Your task to perform on an android device: choose inbox layout in the gmail app Image 0: 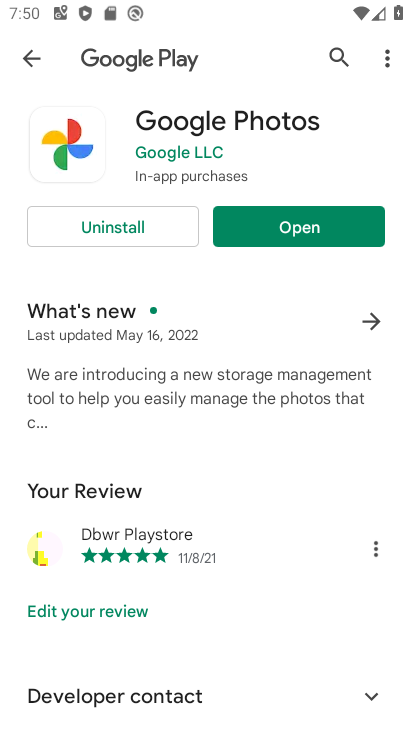
Step 0: press home button
Your task to perform on an android device: choose inbox layout in the gmail app Image 1: 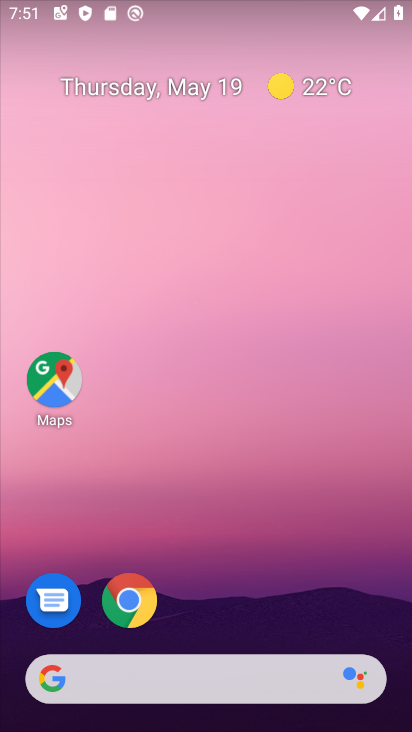
Step 1: drag from (279, 542) to (263, 89)
Your task to perform on an android device: choose inbox layout in the gmail app Image 2: 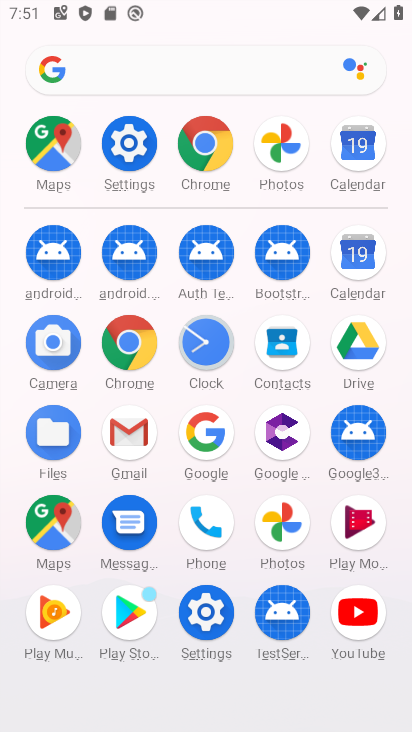
Step 2: click (121, 440)
Your task to perform on an android device: choose inbox layout in the gmail app Image 3: 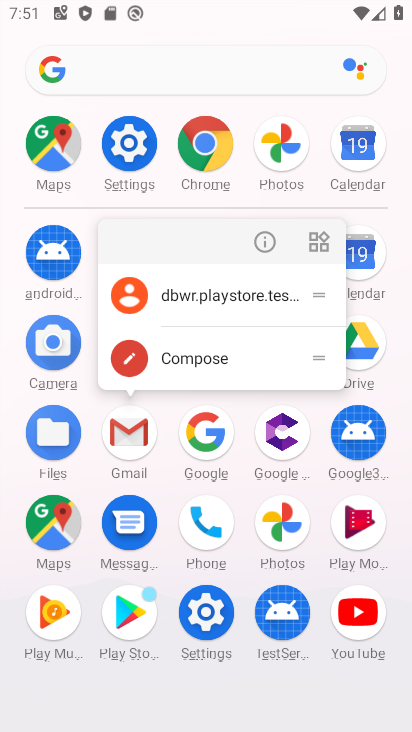
Step 3: click (125, 437)
Your task to perform on an android device: choose inbox layout in the gmail app Image 4: 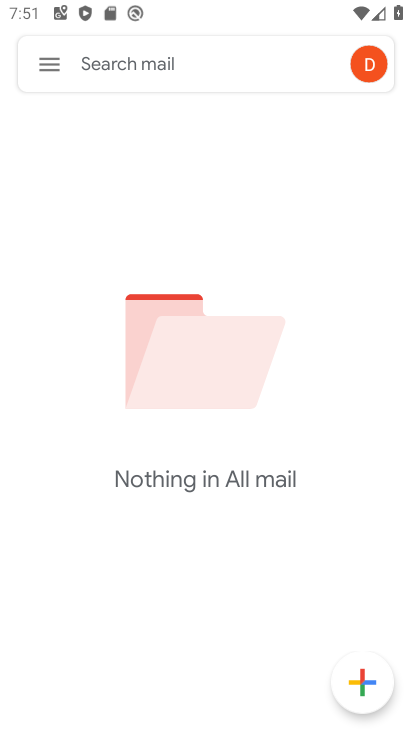
Step 4: click (57, 65)
Your task to perform on an android device: choose inbox layout in the gmail app Image 5: 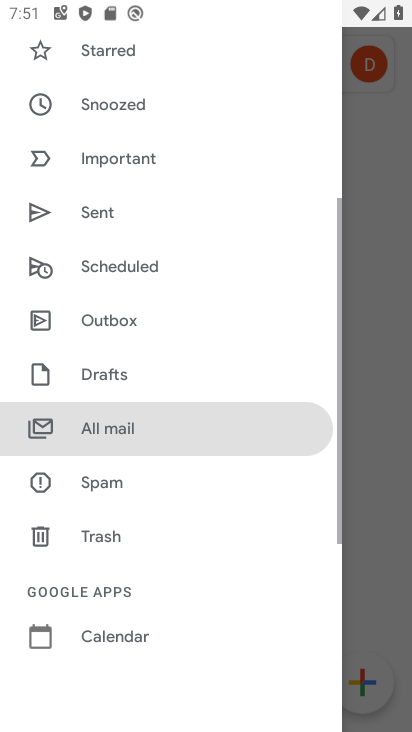
Step 5: drag from (144, 625) to (196, 338)
Your task to perform on an android device: choose inbox layout in the gmail app Image 6: 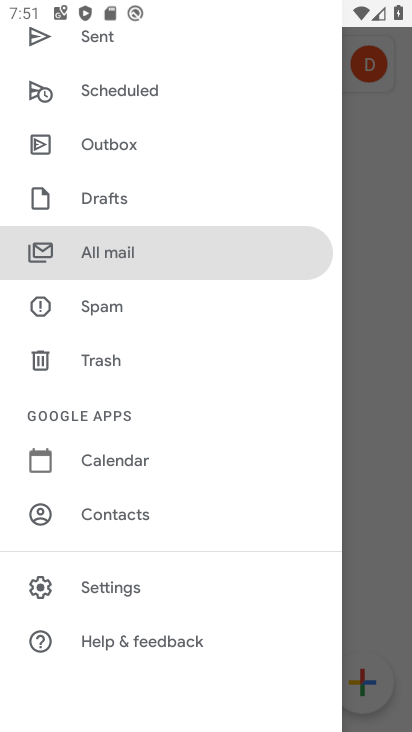
Step 6: click (117, 594)
Your task to perform on an android device: choose inbox layout in the gmail app Image 7: 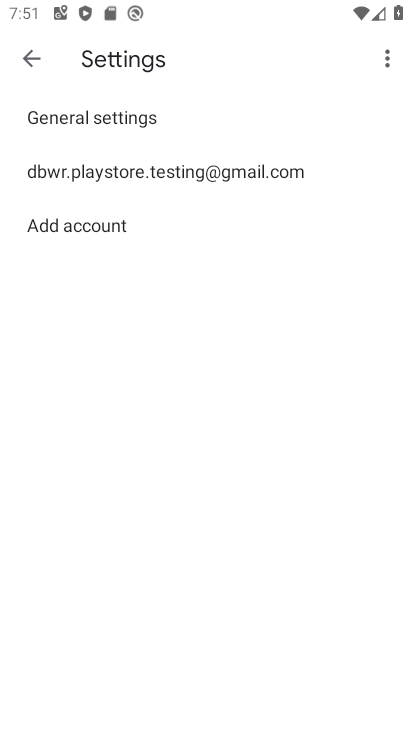
Step 7: click (106, 176)
Your task to perform on an android device: choose inbox layout in the gmail app Image 8: 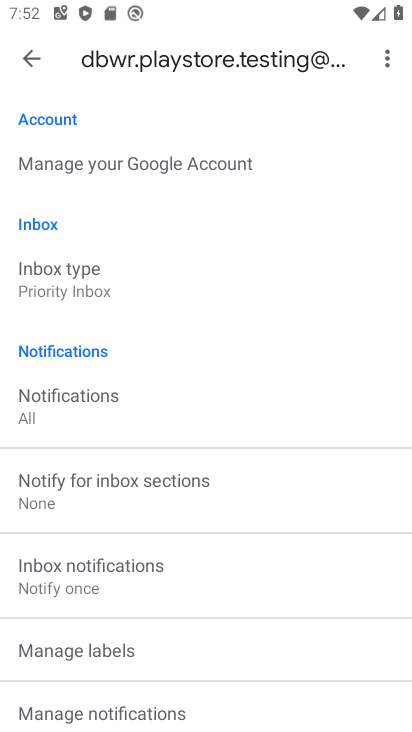
Step 8: click (62, 274)
Your task to perform on an android device: choose inbox layout in the gmail app Image 9: 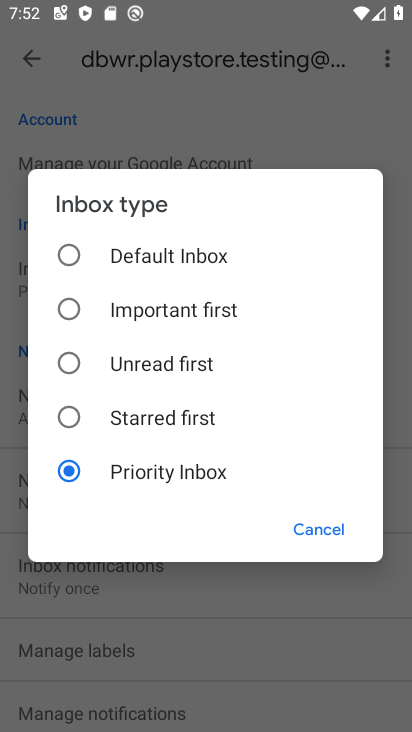
Step 9: click (64, 366)
Your task to perform on an android device: choose inbox layout in the gmail app Image 10: 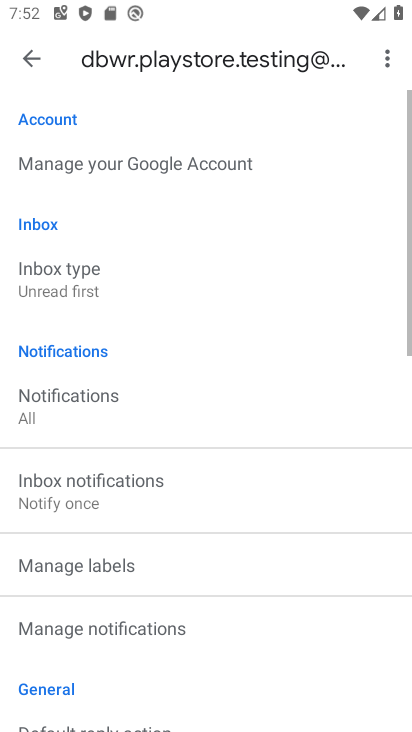
Step 10: task complete